Your task to perform on an android device: Go to Yahoo.com Image 0: 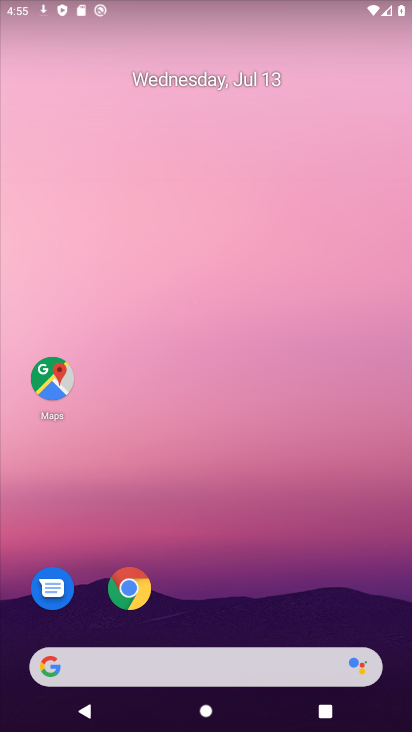
Step 0: drag from (299, 645) to (240, 12)
Your task to perform on an android device: Go to Yahoo.com Image 1: 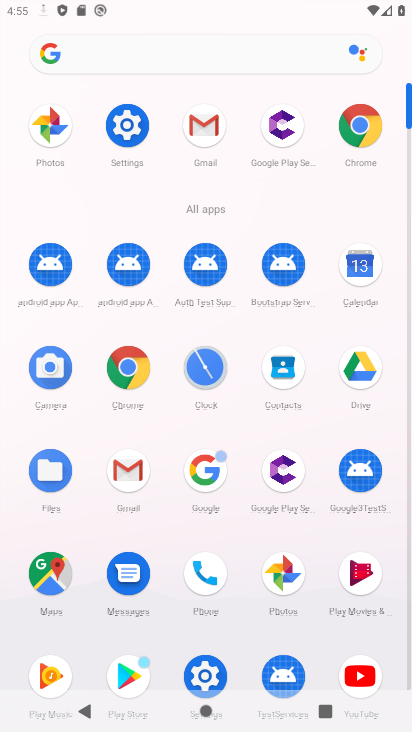
Step 1: click (367, 138)
Your task to perform on an android device: Go to Yahoo.com Image 2: 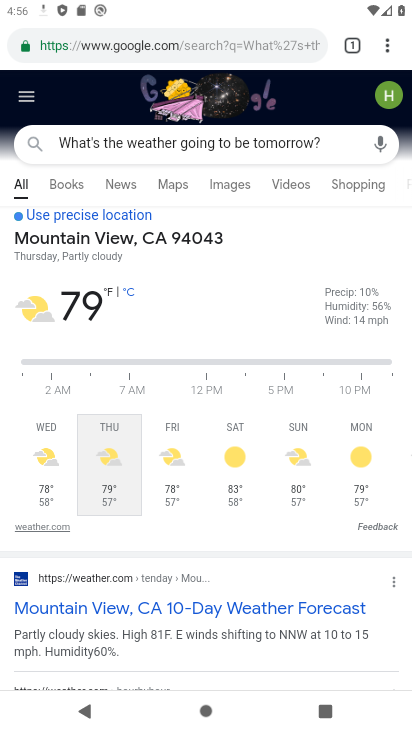
Step 2: drag from (235, 702) to (315, 509)
Your task to perform on an android device: Go to Yahoo.com Image 3: 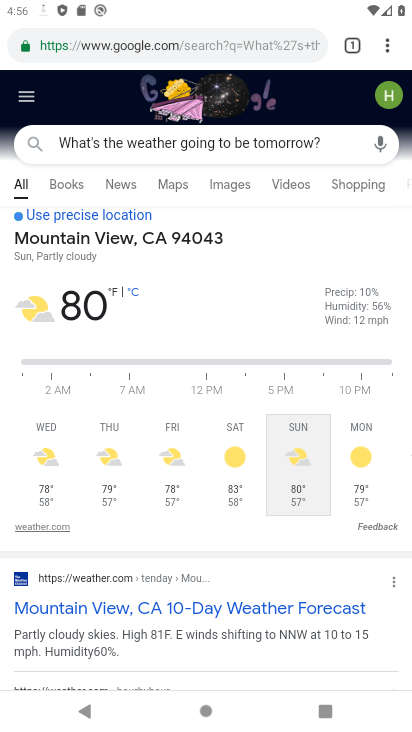
Step 3: click (180, 49)
Your task to perform on an android device: Go to Yahoo.com Image 4: 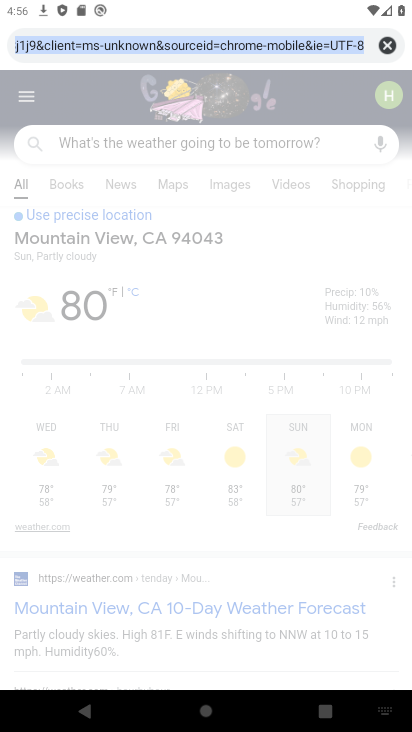
Step 4: type "Yahoo.com"
Your task to perform on an android device: Go to Yahoo.com Image 5: 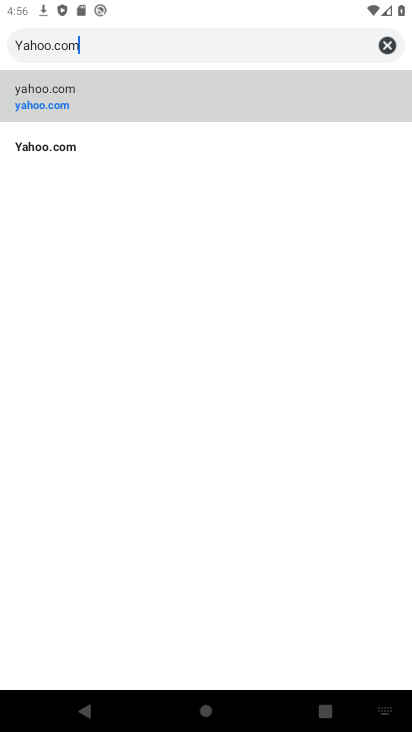
Step 5: type ""
Your task to perform on an android device: Go to Yahoo.com Image 6: 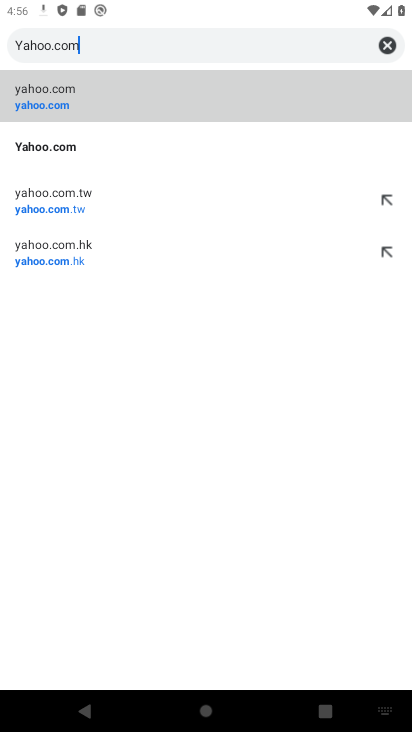
Step 6: click (163, 87)
Your task to perform on an android device: Go to Yahoo.com Image 7: 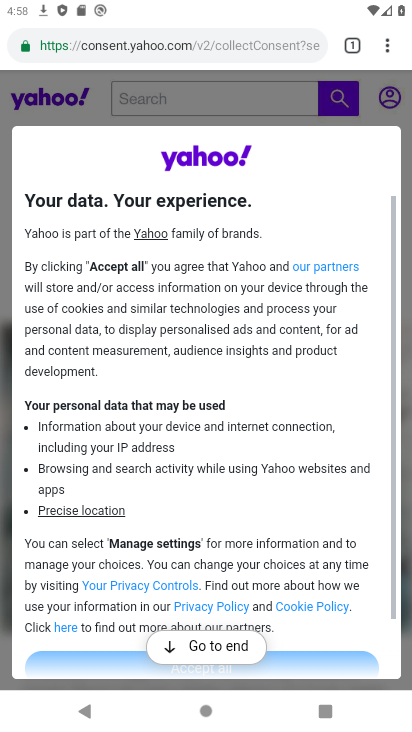
Step 7: task complete